Your task to perform on an android device: Open Android settings Image 0: 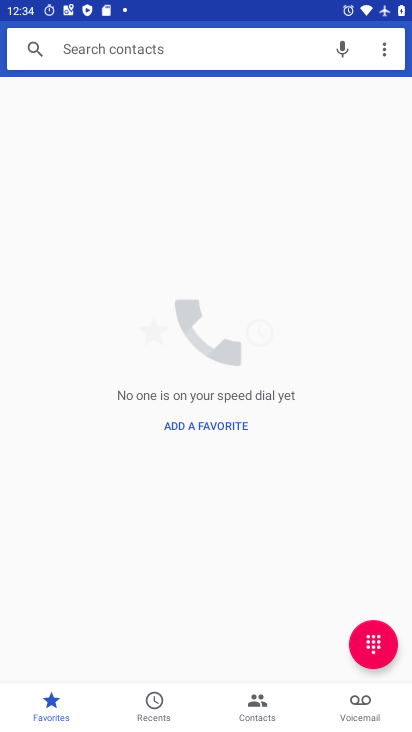
Step 0: press home button
Your task to perform on an android device: Open Android settings Image 1: 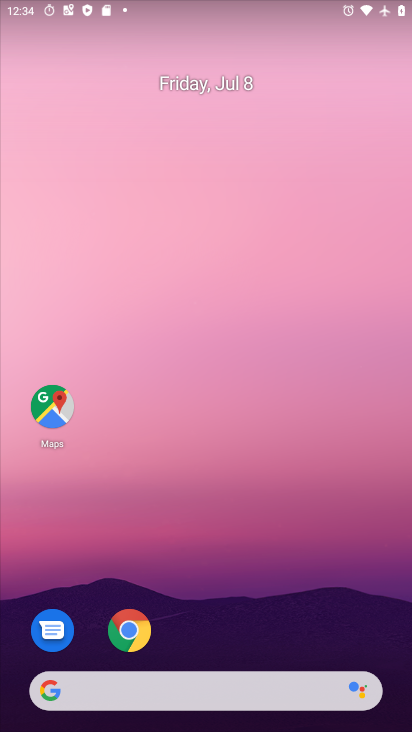
Step 1: drag from (223, 640) to (226, 208)
Your task to perform on an android device: Open Android settings Image 2: 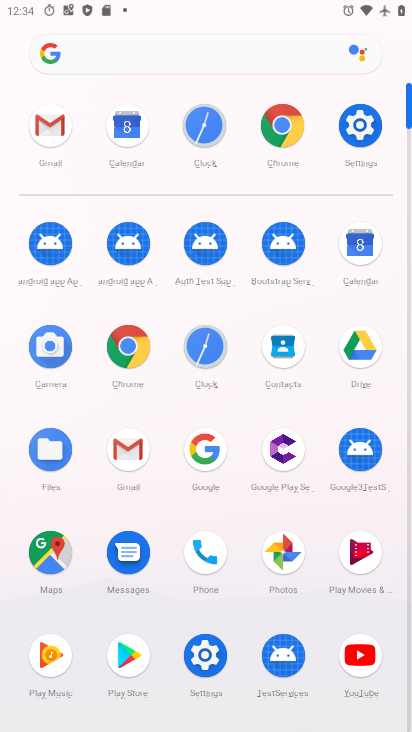
Step 2: click (360, 144)
Your task to perform on an android device: Open Android settings Image 3: 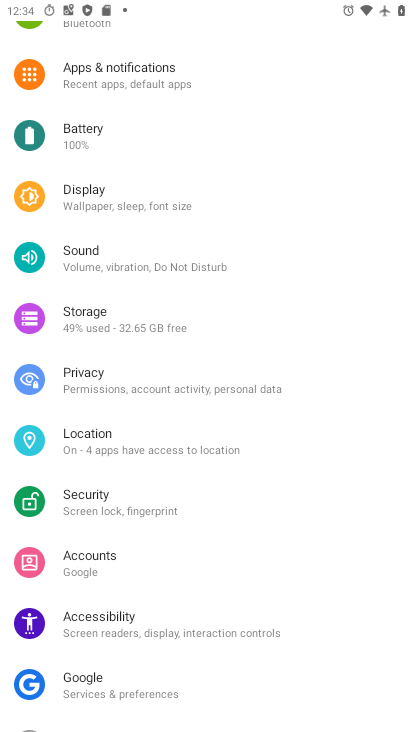
Step 3: task complete